Your task to perform on an android device: Open Google Chrome and click the shortcut for Amazon.com Image 0: 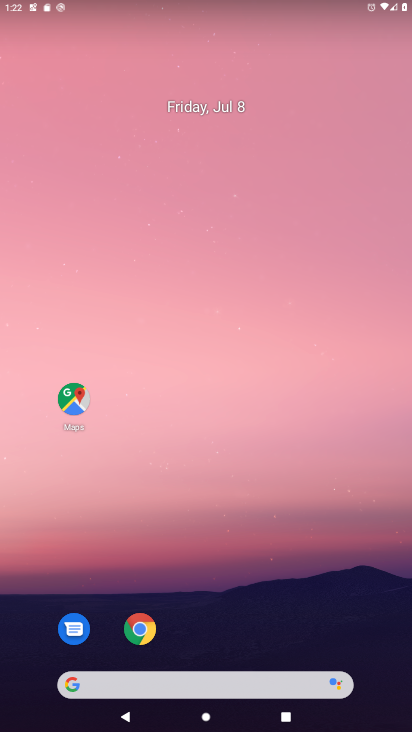
Step 0: click (132, 630)
Your task to perform on an android device: Open Google Chrome and click the shortcut for Amazon.com Image 1: 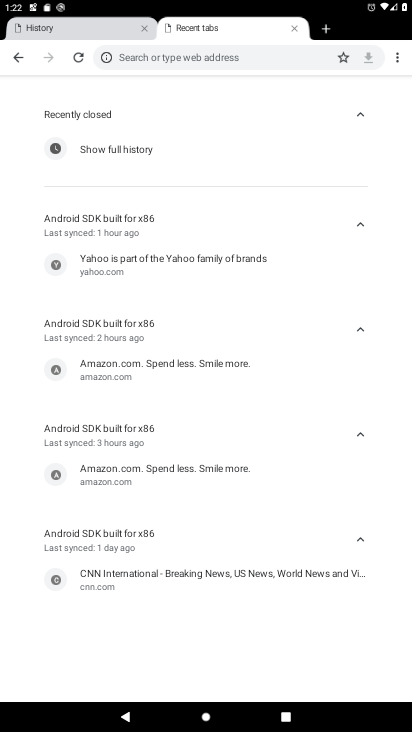
Step 1: click (323, 27)
Your task to perform on an android device: Open Google Chrome and click the shortcut for Amazon.com Image 2: 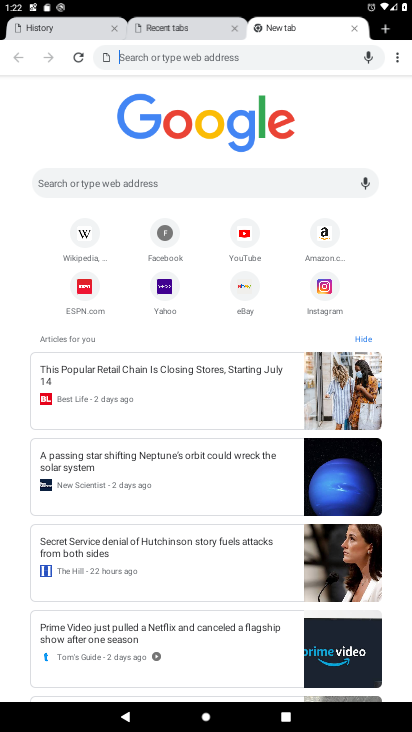
Step 2: click (333, 233)
Your task to perform on an android device: Open Google Chrome and click the shortcut for Amazon.com Image 3: 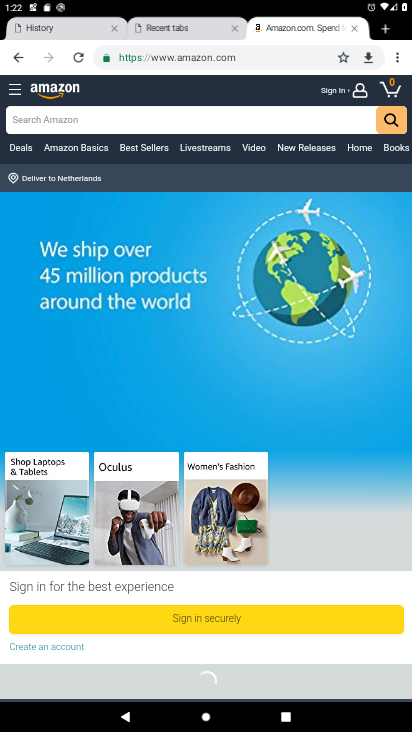
Step 3: task complete